Your task to perform on an android device: turn on notifications settings in the gmail app Image 0: 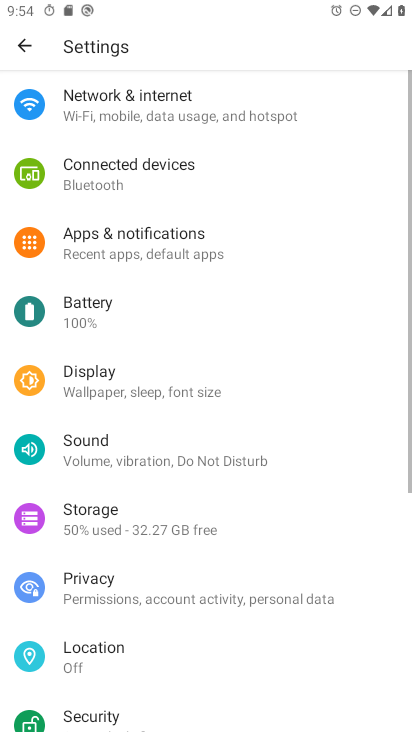
Step 0: press home button
Your task to perform on an android device: turn on notifications settings in the gmail app Image 1: 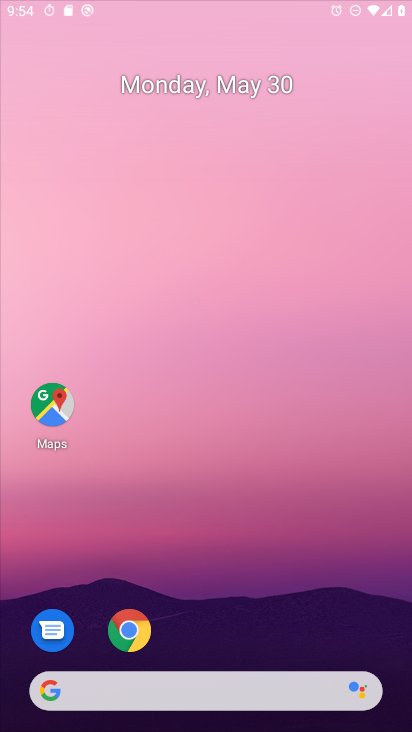
Step 1: drag from (343, 633) to (290, 17)
Your task to perform on an android device: turn on notifications settings in the gmail app Image 2: 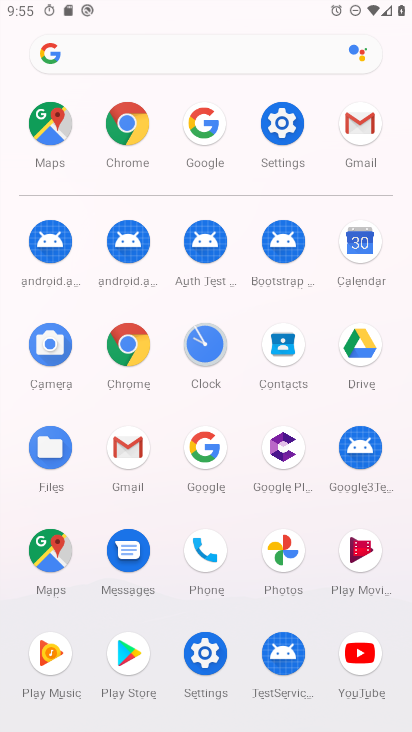
Step 2: click (124, 453)
Your task to perform on an android device: turn on notifications settings in the gmail app Image 3: 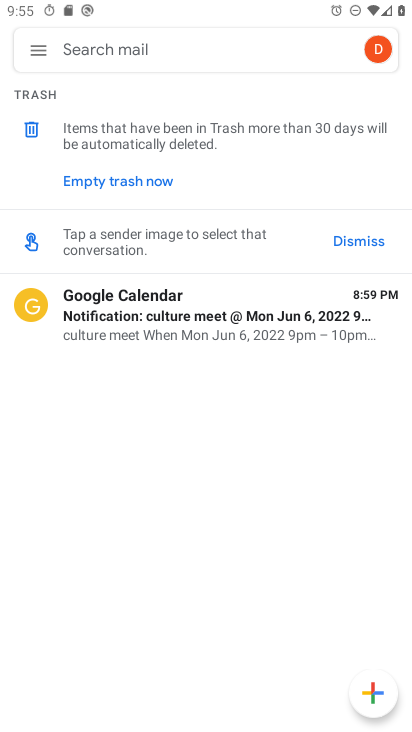
Step 3: click (32, 45)
Your task to perform on an android device: turn on notifications settings in the gmail app Image 4: 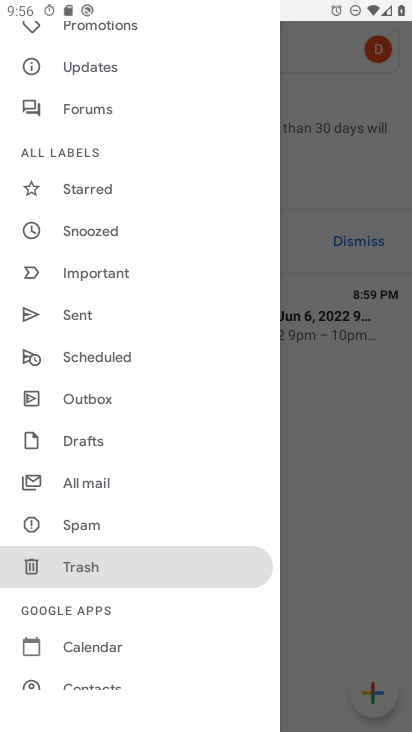
Step 4: drag from (111, 652) to (149, 198)
Your task to perform on an android device: turn on notifications settings in the gmail app Image 5: 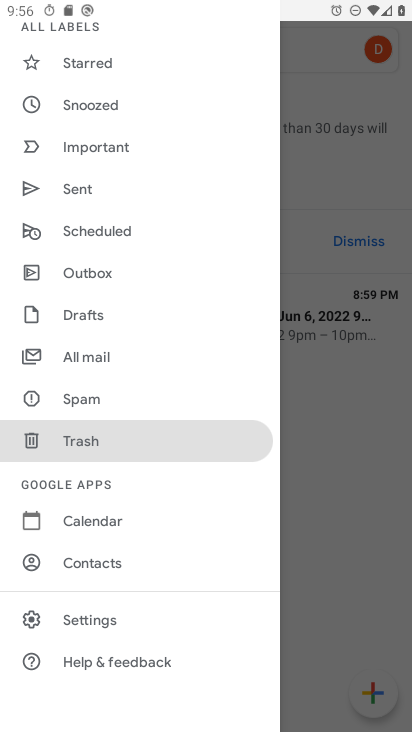
Step 5: click (95, 632)
Your task to perform on an android device: turn on notifications settings in the gmail app Image 6: 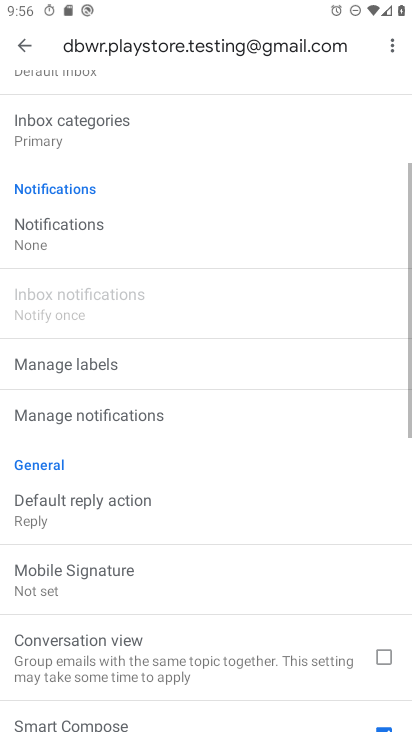
Step 6: click (114, 211)
Your task to perform on an android device: turn on notifications settings in the gmail app Image 7: 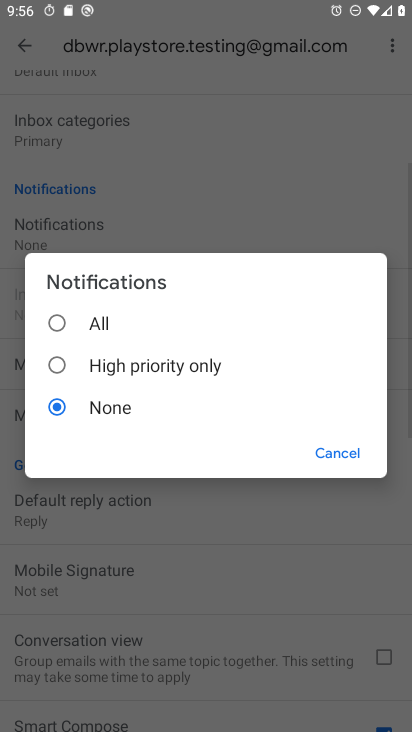
Step 7: click (92, 330)
Your task to perform on an android device: turn on notifications settings in the gmail app Image 8: 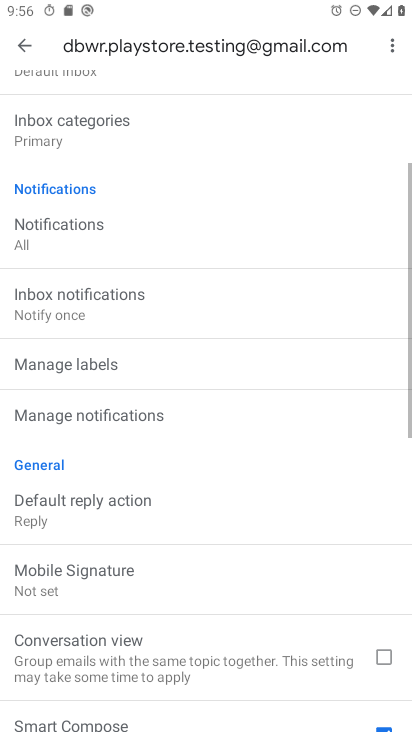
Step 8: task complete